Your task to perform on an android device: What's the weather? Image 0: 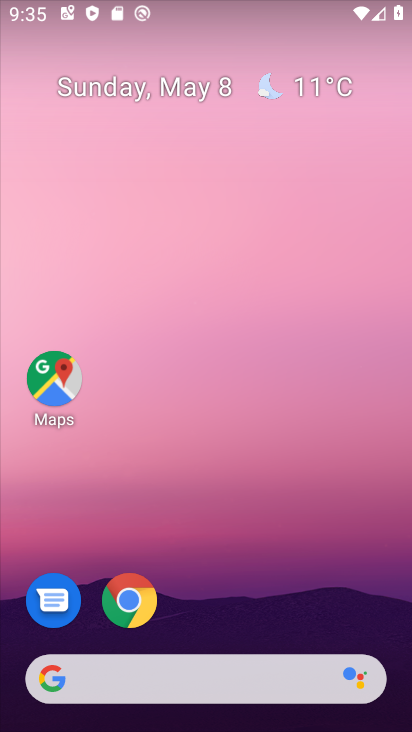
Step 0: drag from (309, 590) to (272, 46)
Your task to perform on an android device: What's the weather? Image 1: 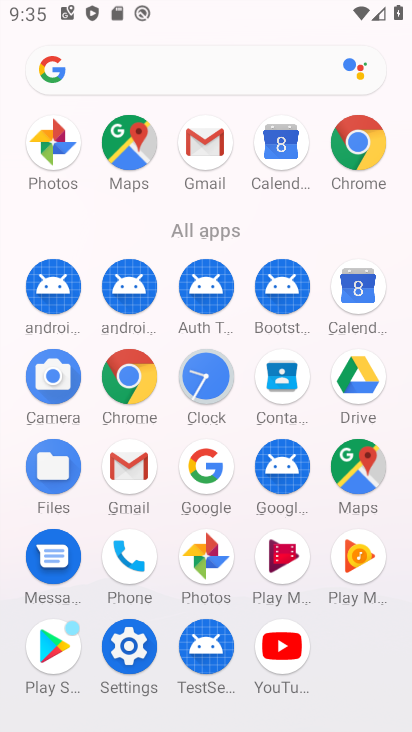
Step 1: drag from (2, 594) to (0, 230)
Your task to perform on an android device: What's the weather? Image 2: 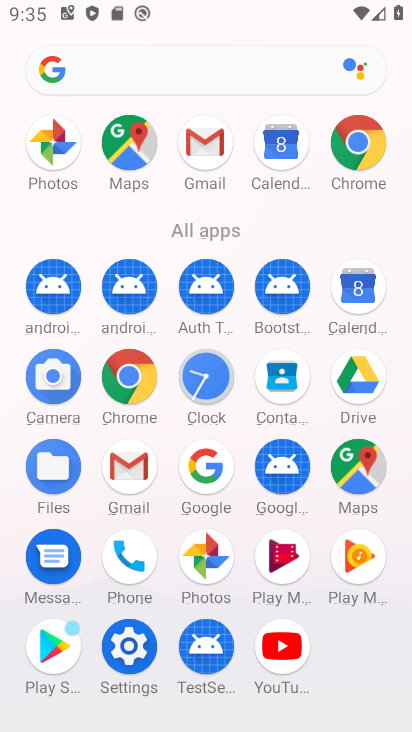
Step 2: click (131, 375)
Your task to perform on an android device: What's the weather? Image 3: 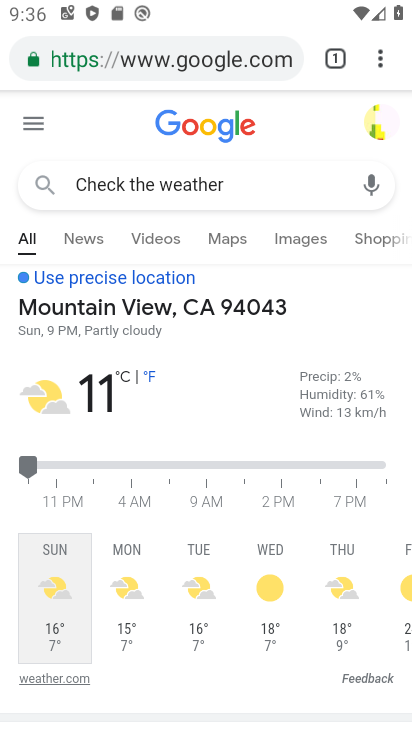
Step 3: task complete